Your task to perform on an android device: Clear all items from cart on bestbuy. Add "lg ultragear" to the cart on bestbuy, then select checkout. Image 0: 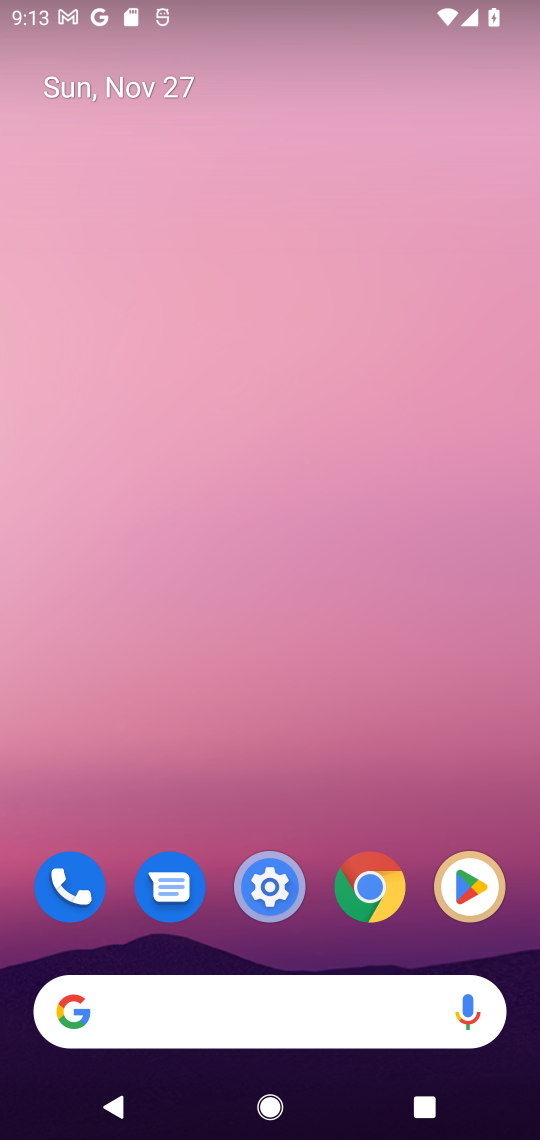
Step 0: click (256, 995)
Your task to perform on an android device: Clear all items from cart on bestbuy. Add "lg ultragear" to the cart on bestbuy, then select checkout. Image 1: 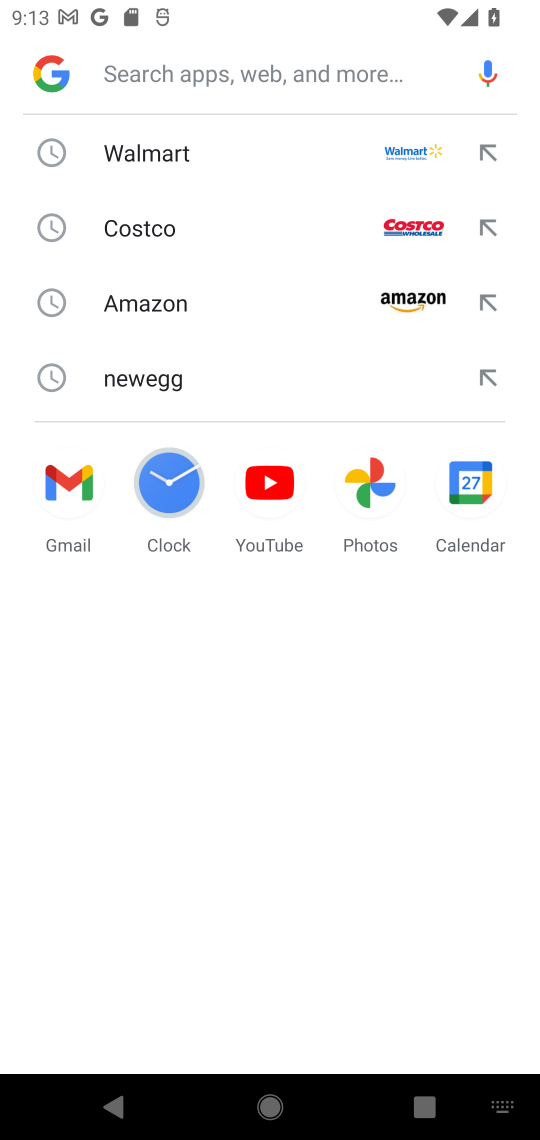
Step 1: type "bestbuy"
Your task to perform on an android device: Clear all items from cart on bestbuy. Add "lg ultragear" to the cart on bestbuy, then select checkout. Image 2: 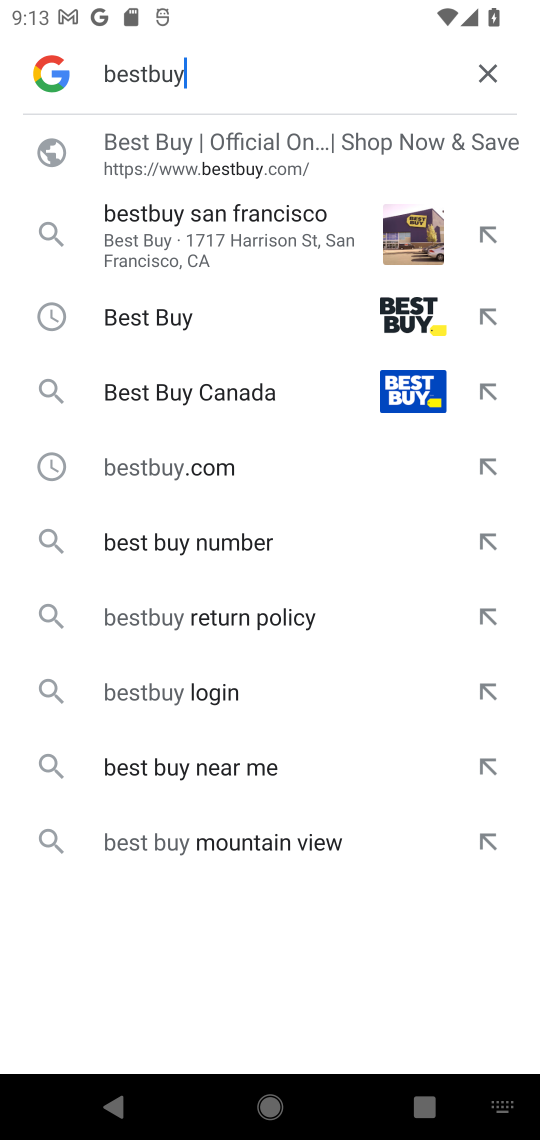
Step 2: click (297, 158)
Your task to perform on an android device: Clear all items from cart on bestbuy. Add "lg ultragear" to the cart on bestbuy, then select checkout. Image 3: 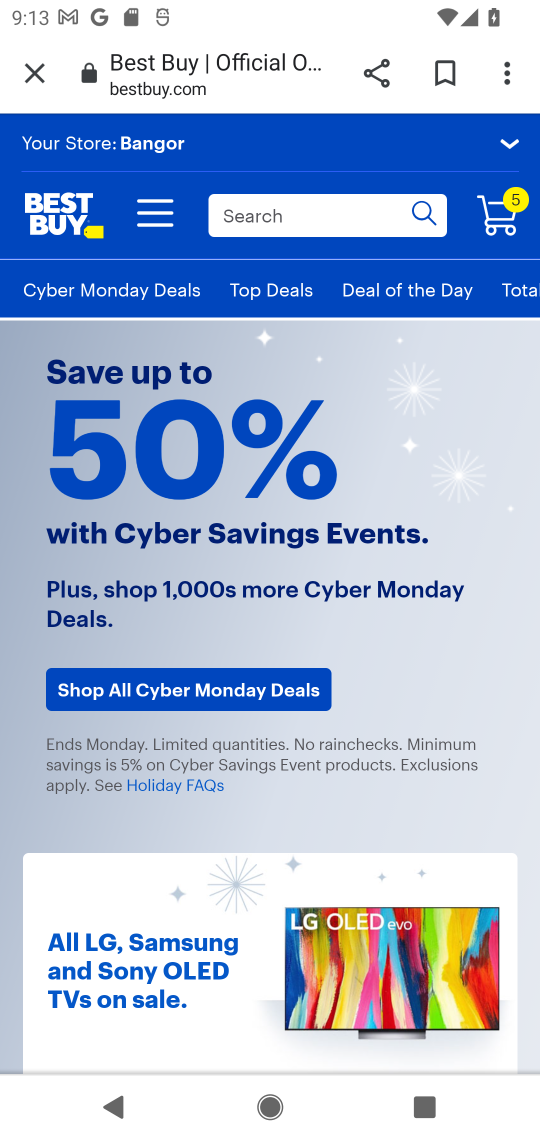
Step 3: click (297, 222)
Your task to perform on an android device: Clear all items from cart on bestbuy. Add "lg ultragear" to the cart on bestbuy, then select checkout. Image 4: 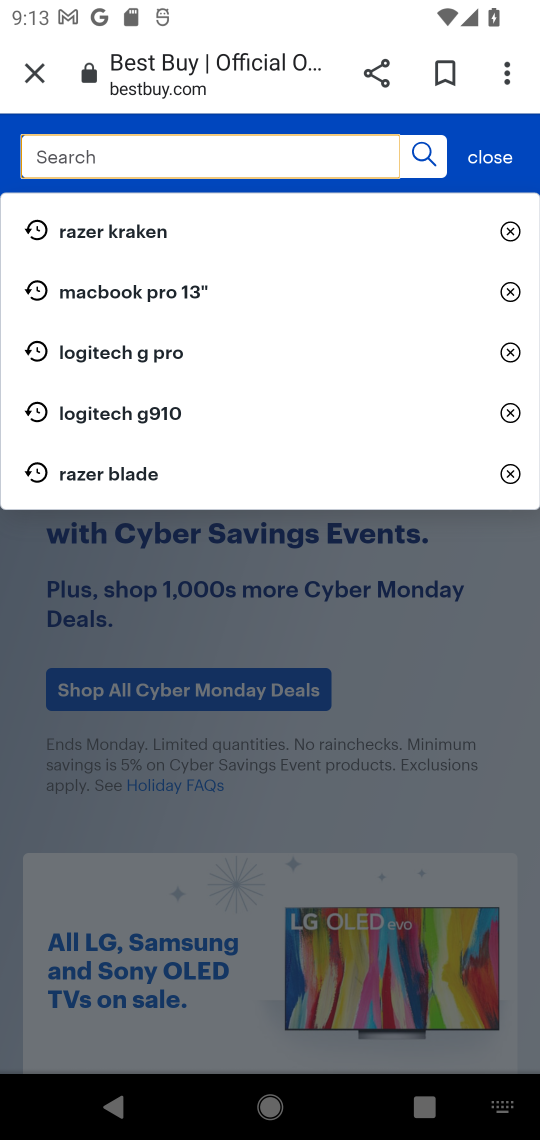
Step 4: type "lg ultragear"
Your task to perform on an android device: Clear all items from cart on bestbuy. Add "lg ultragear" to the cart on bestbuy, then select checkout. Image 5: 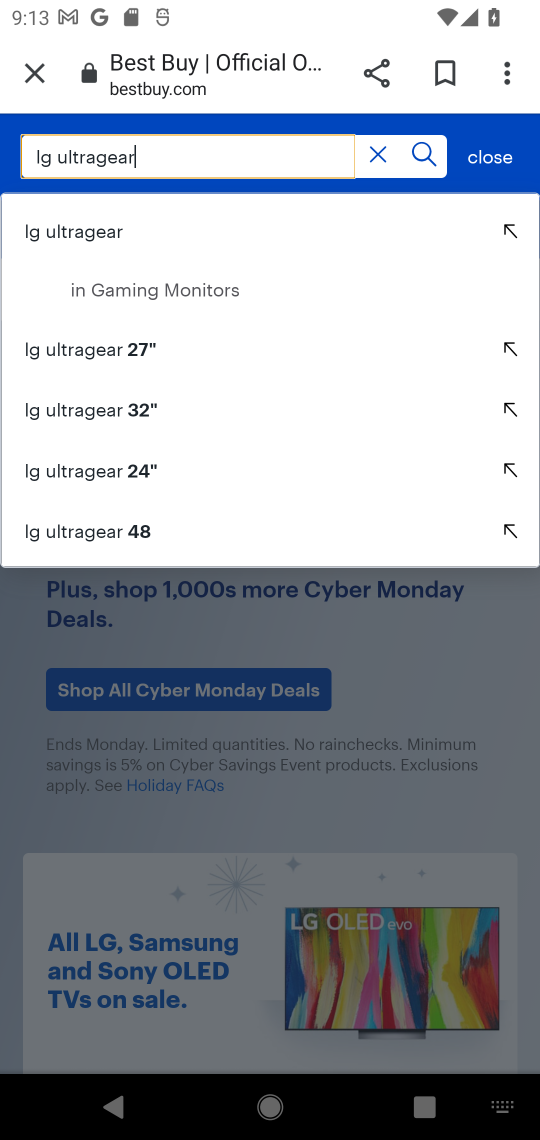
Step 5: click (265, 215)
Your task to perform on an android device: Clear all items from cart on bestbuy. Add "lg ultragear" to the cart on bestbuy, then select checkout. Image 6: 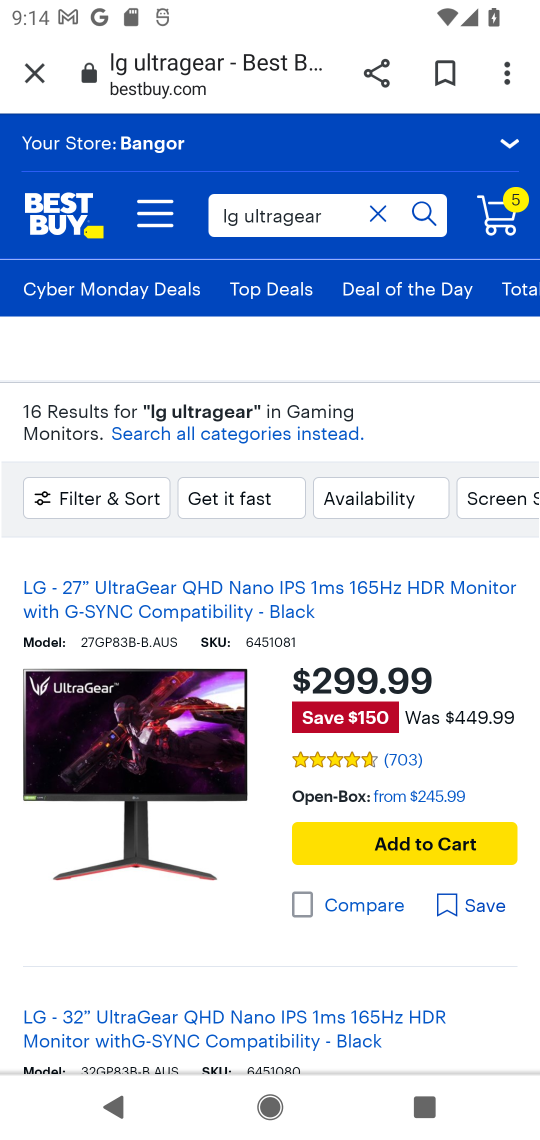
Step 6: click (137, 622)
Your task to perform on an android device: Clear all items from cart on bestbuy. Add "lg ultragear" to the cart on bestbuy, then select checkout. Image 7: 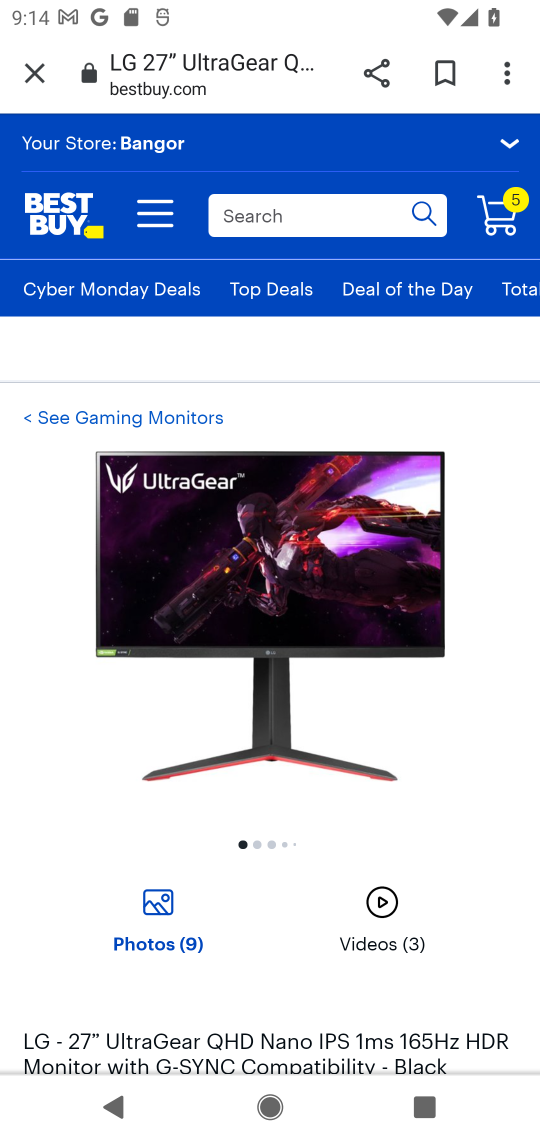
Step 7: drag from (311, 989) to (280, 618)
Your task to perform on an android device: Clear all items from cart on bestbuy. Add "lg ultragear" to the cart on bestbuy, then select checkout. Image 8: 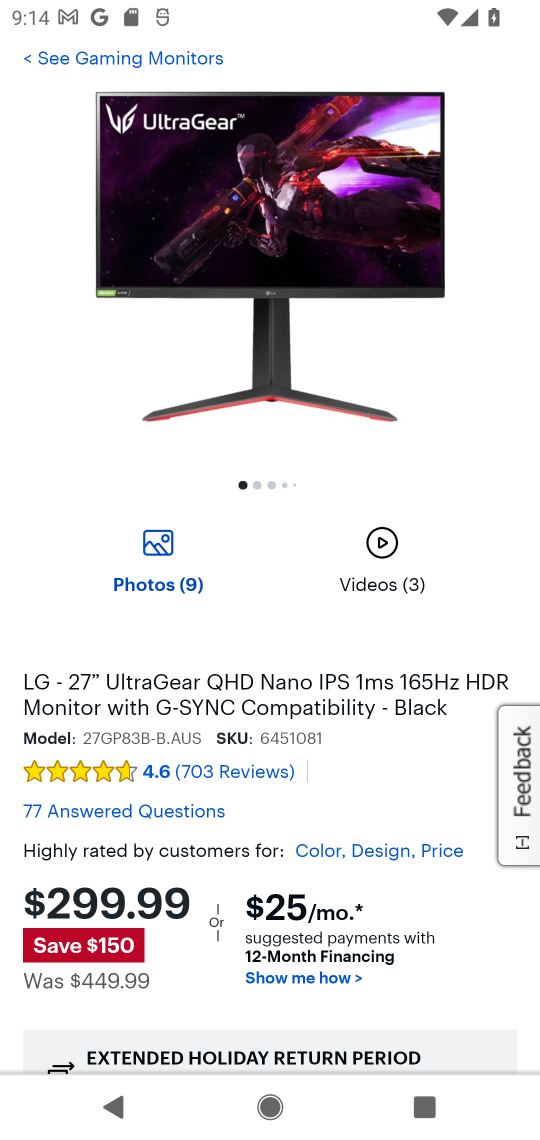
Step 8: drag from (287, 1008) to (284, 529)
Your task to perform on an android device: Clear all items from cart on bestbuy. Add "lg ultragear" to the cart on bestbuy, then select checkout. Image 9: 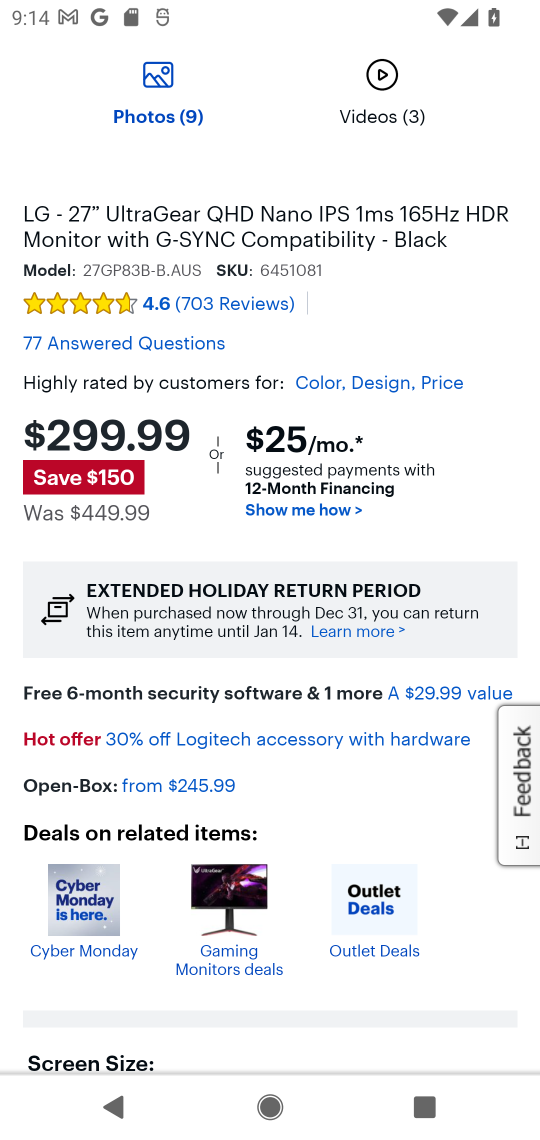
Step 9: drag from (492, 978) to (343, 470)
Your task to perform on an android device: Clear all items from cart on bestbuy. Add "lg ultragear" to the cart on bestbuy, then select checkout. Image 10: 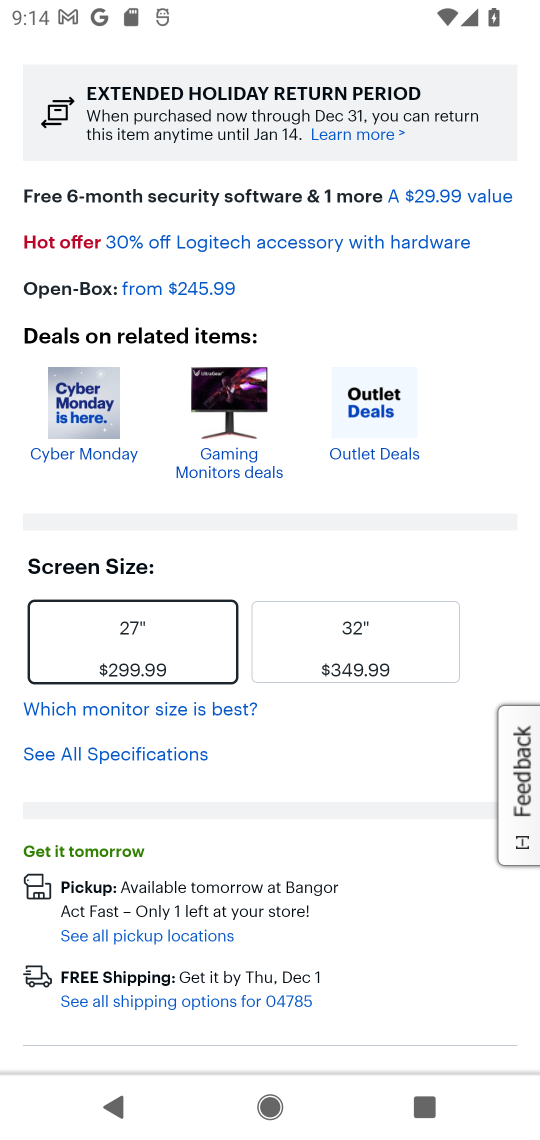
Step 10: drag from (401, 870) to (320, 435)
Your task to perform on an android device: Clear all items from cart on bestbuy. Add "lg ultragear" to the cart on bestbuy, then select checkout. Image 11: 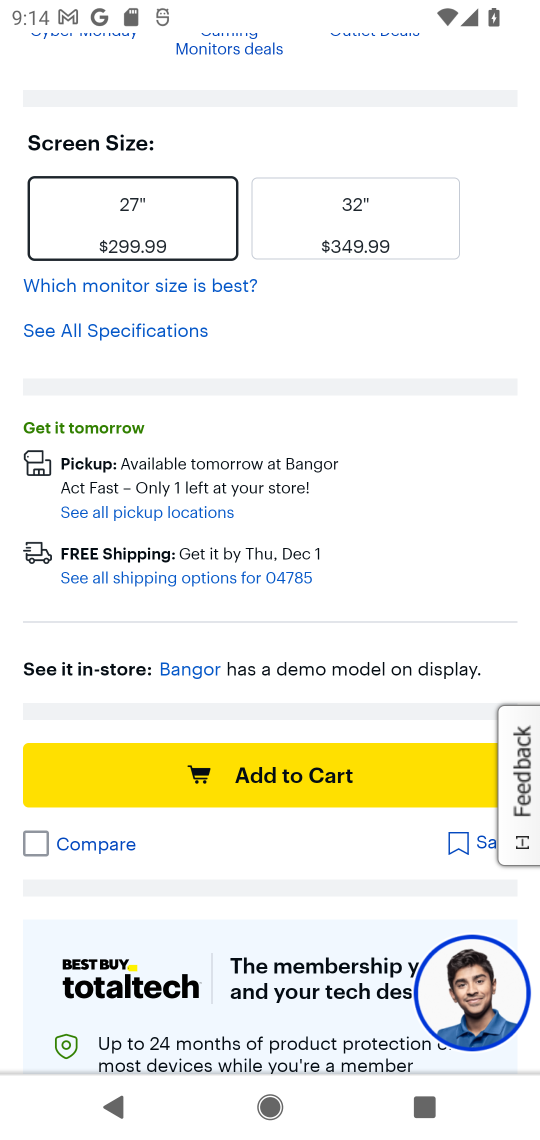
Step 11: click (325, 791)
Your task to perform on an android device: Clear all items from cart on bestbuy. Add "lg ultragear" to the cart on bestbuy, then select checkout. Image 12: 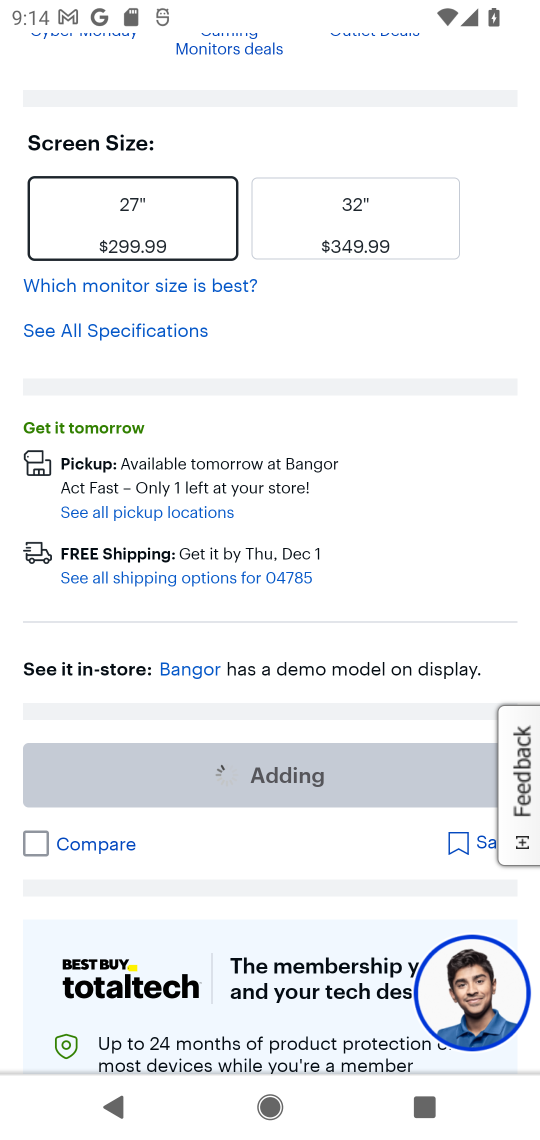
Step 12: task complete